Your task to perform on an android device: Go to CNN.com Image 0: 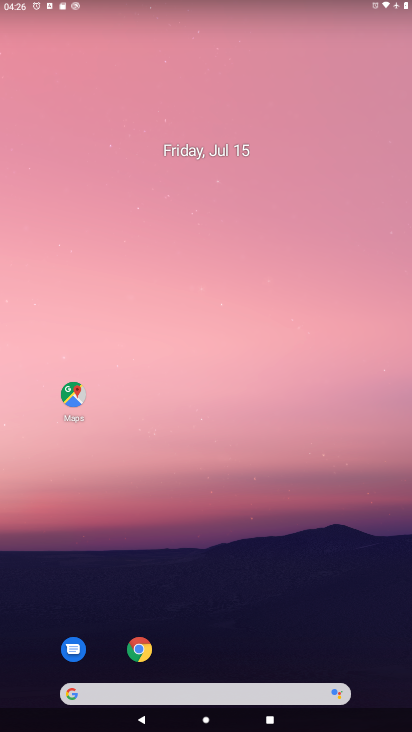
Step 0: click (141, 652)
Your task to perform on an android device: Go to CNN.com Image 1: 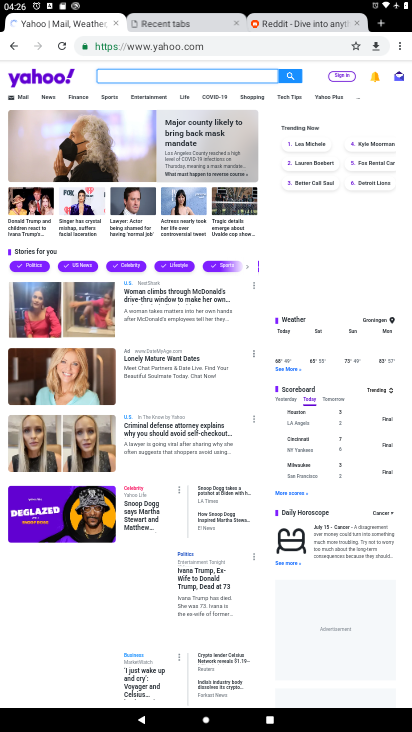
Step 1: click (234, 46)
Your task to perform on an android device: Go to CNN.com Image 2: 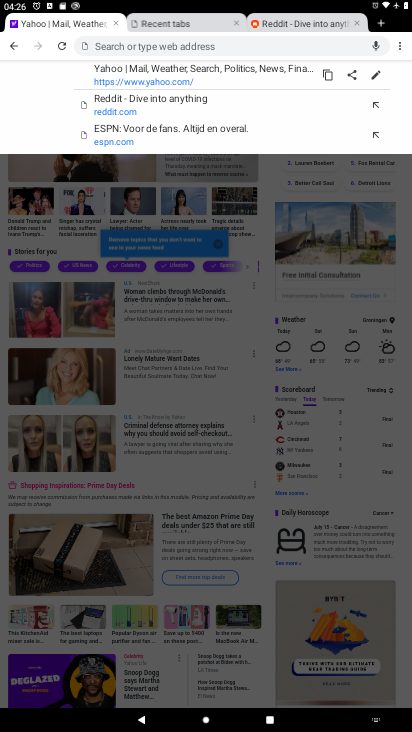
Step 2: type "CNN.com"
Your task to perform on an android device: Go to CNN.com Image 3: 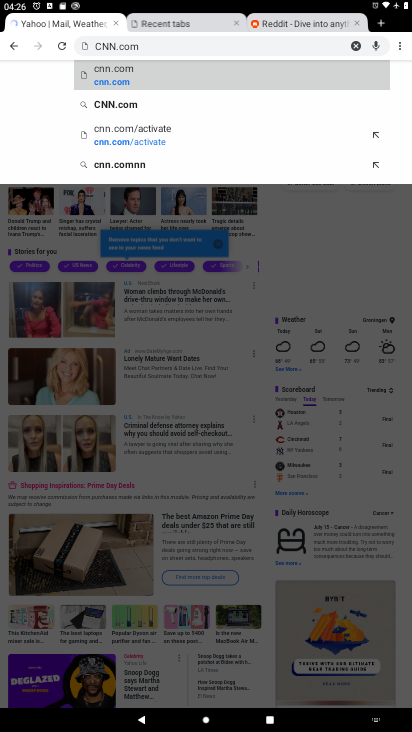
Step 3: click (111, 69)
Your task to perform on an android device: Go to CNN.com Image 4: 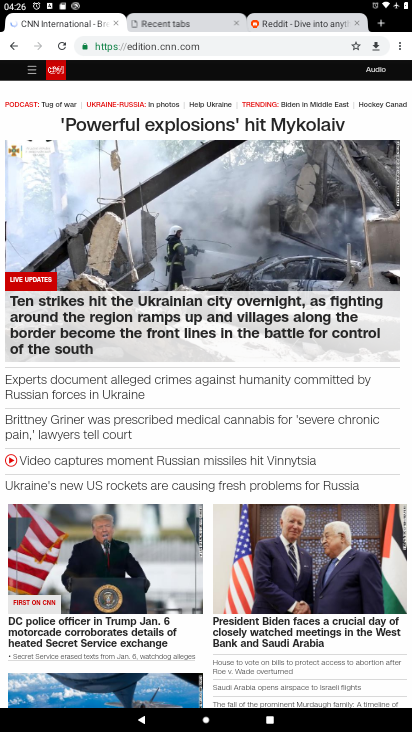
Step 4: task complete